Your task to perform on an android device: set an alarm Image 0: 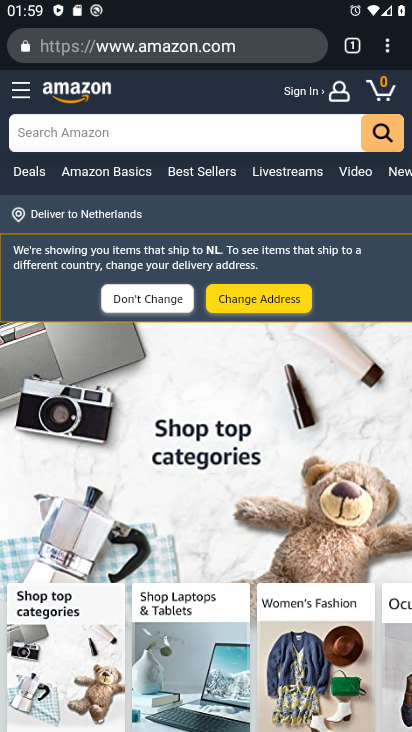
Step 0: press home button
Your task to perform on an android device: set an alarm Image 1: 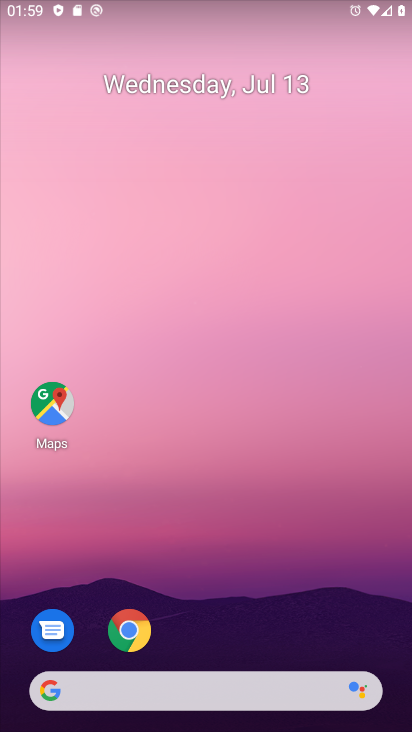
Step 1: drag from (191, 653) to (187, 323)
Your task to perform on an android device: set an alarm Image 2: 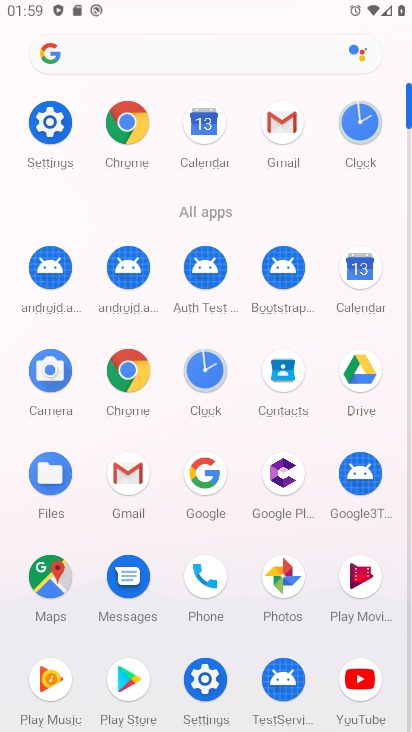
Step 2: click (358, 130)
Your task to perform on an android device: set an alarm Image 3: 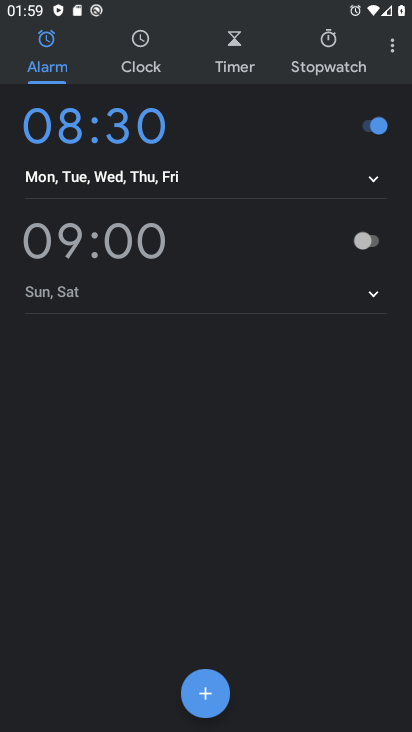
Step 3: task complete